Your task to perform on an android device: Open display settings Image 0: 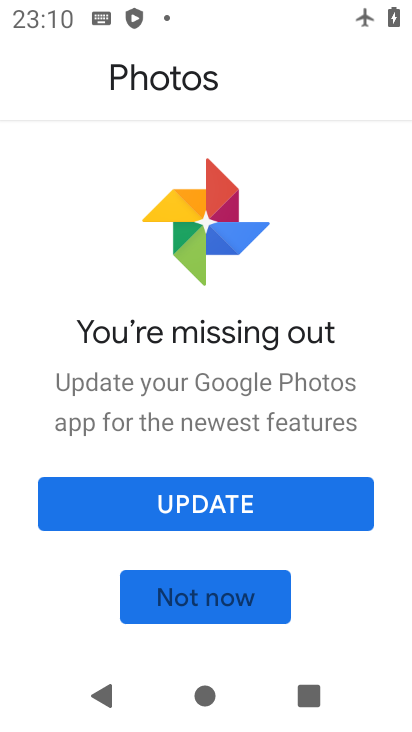
Step 0: press home button
Your task to perform on an android device: Open display settings Image 1: 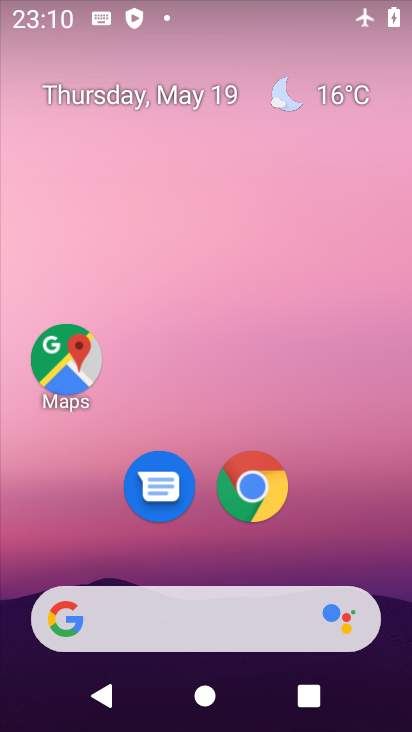
Step 1: drag from (334, 542) to (335, 181)
Your task to perform on an android device: Open display settings Image 2: 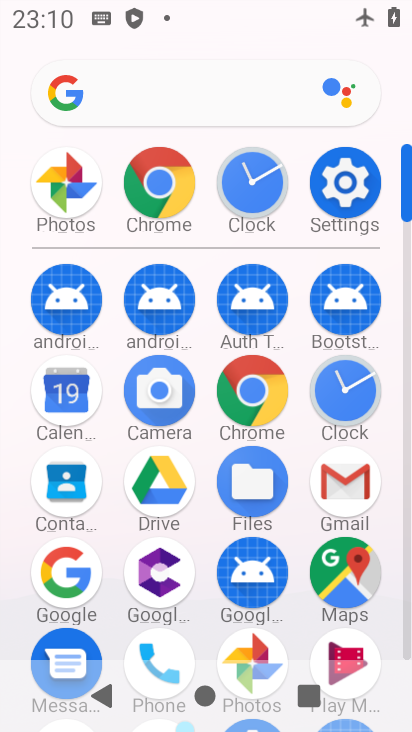
Step 2: click (339, 219)
Your task to perform on an android device: Open display settings Image 3: 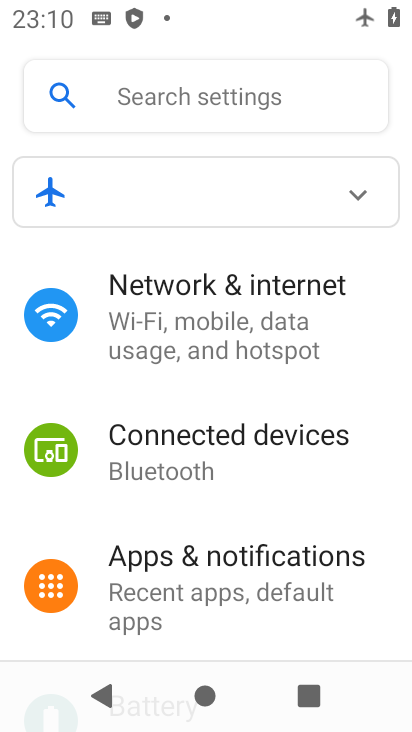
Step 3: click (245, 303)
Your task to perform on an android device: Open display settings Image 4: 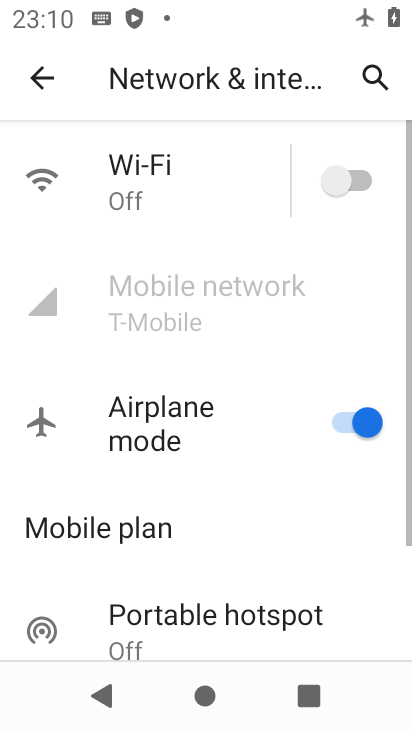
Step 4: click (327, 191)
Your task to perform on an android device: Open display settings Image 5: 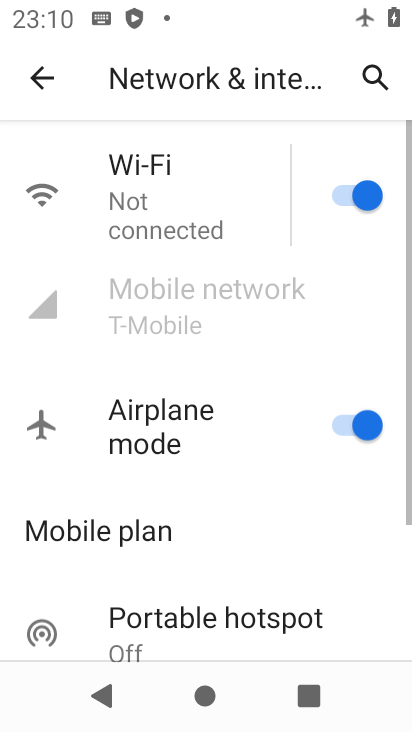
Step 5: click (330, 421)
Your task to perform on an android device: Open display settings Image 6: 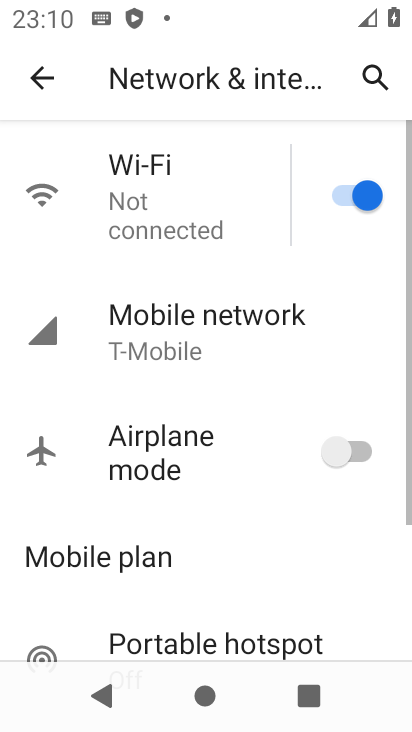
Step 6: click (52, 75)
Your task to perform on an android device: Open display settings Image 7: 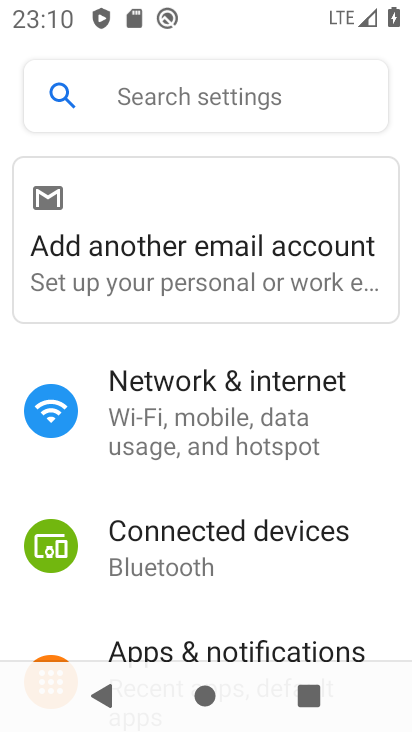
Step 7: drag from (171, 639) to (217, 218)
Your task to perform on an android device: Open display settings Image 8: 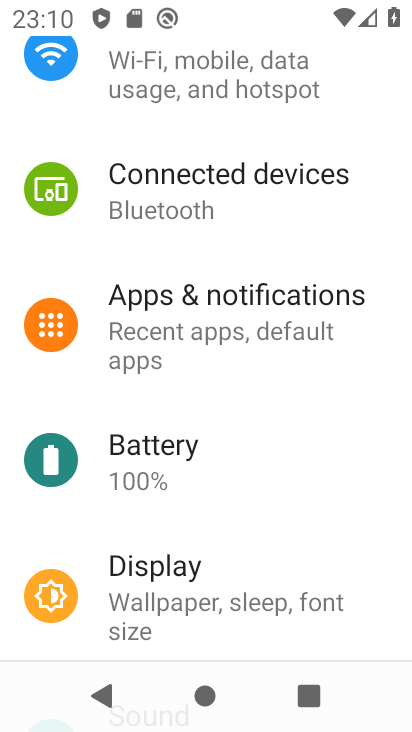
Step 8: click (214, 557)
Your task to perform on an android device: Open display settings Image 9: 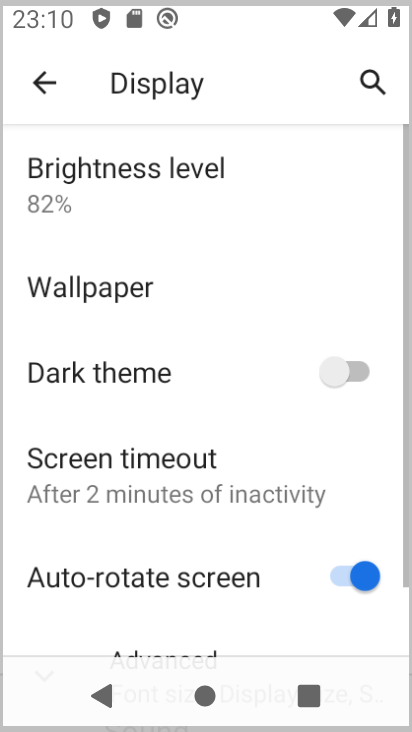
Step 9: task complete